Your task to perform on an android device: Open the calendar app, open the side menu, and click the "Day" option Image 0: 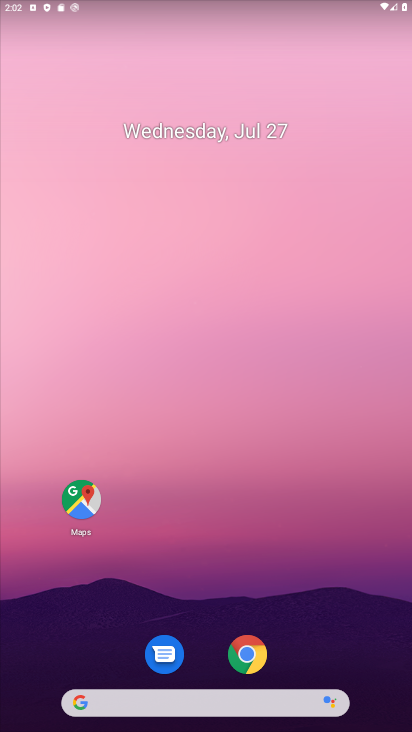
Step 0: drag from (56, 607) to (318, 104)
Your task to perform on an android device: Open the calendar app, open the side menu, and click the "Day" option Image 1: 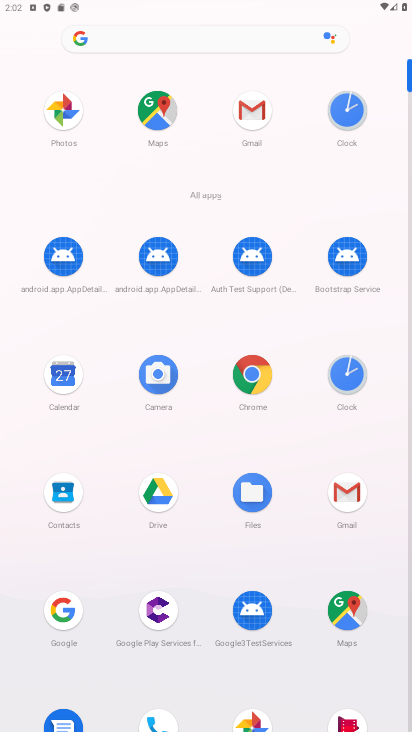
Step 1: click (53, 388)
Your task to perform on an android device: Open the calendar app, open the side menu, and click the "Day" option Image 2: 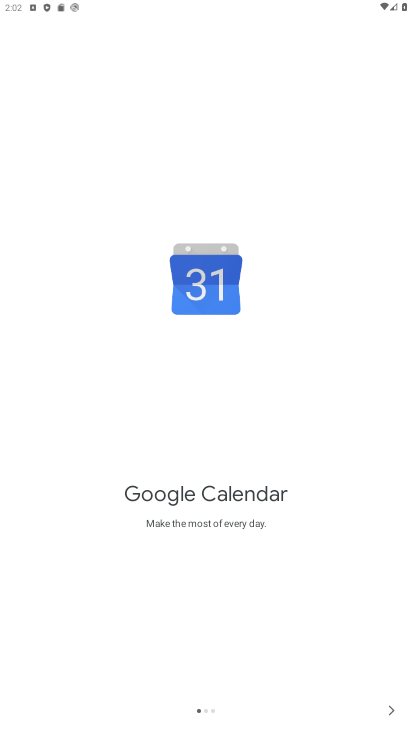
Step 2: click (397, 712)
Your task to perform on an android device: Open the calendar app, open the side menu, and click the "Day" option Image 3: 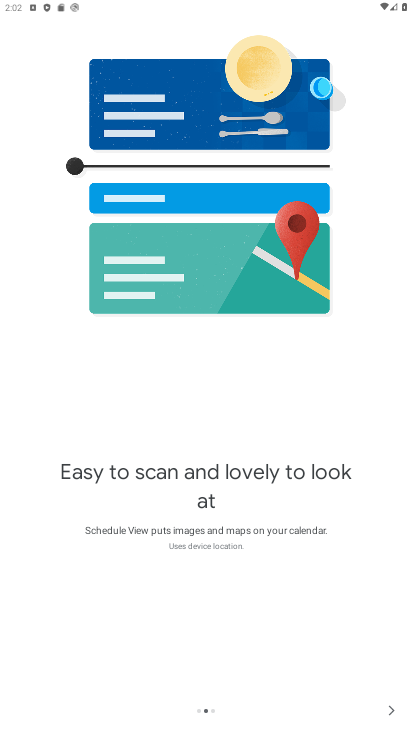
Step 3: click (397, 712)
Your task to perform on an android device: Open the calendar app, open the side menu, and click the "Day" option Image 4: 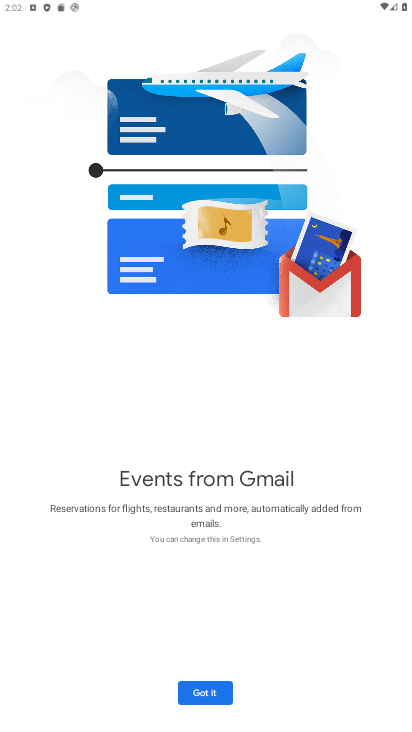
Step 4: click (220, 690)
Your task to perform on an android device: Open the calendar app, open the side menu, and click the "Day" option Image 5: 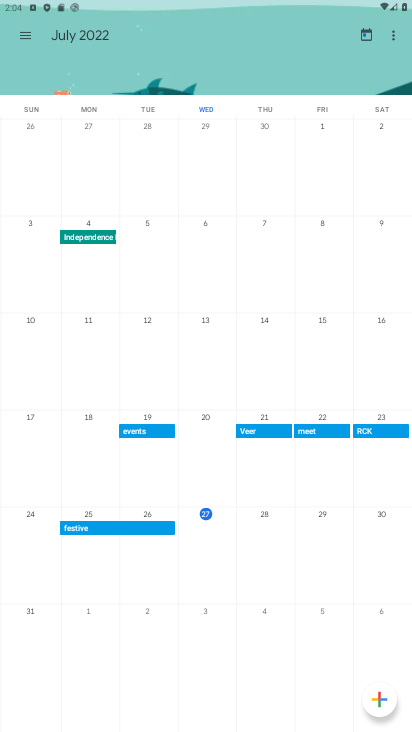
Step 5: click (29, 32)
Your task to perform on an android device: Open the calendar app, open the side menu, and click the "Day" option Image 6: 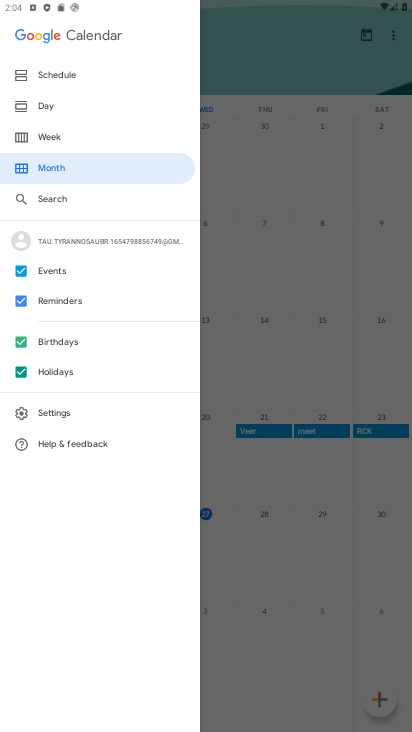
Step 6: click (53, 98)
Your task to perform on an android device: Open the calendar app, open the side menu, and click the "Day" option Image 7: 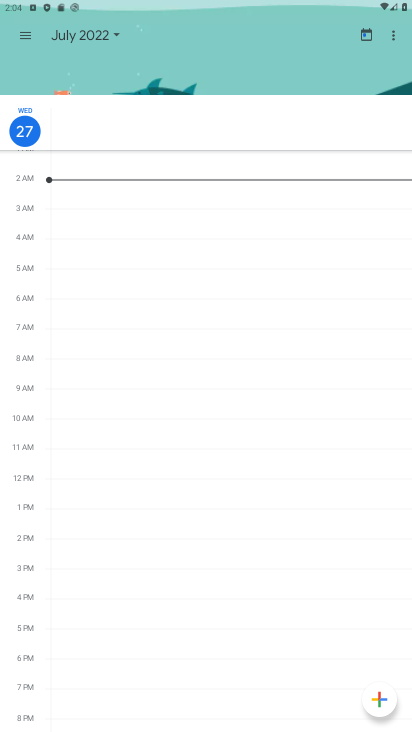
Step 7: task complete